Your task to perform on an android device: turn on improve location accuracy Image 0: 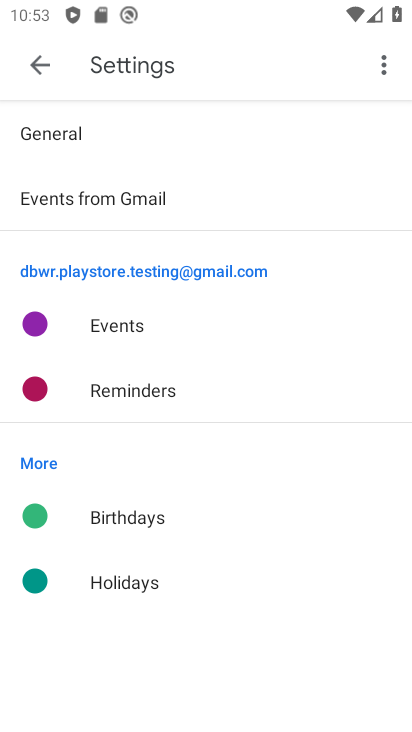
Step 0: press back button
Your task to perform on an android device: turn on improve location accuracy Image 1: 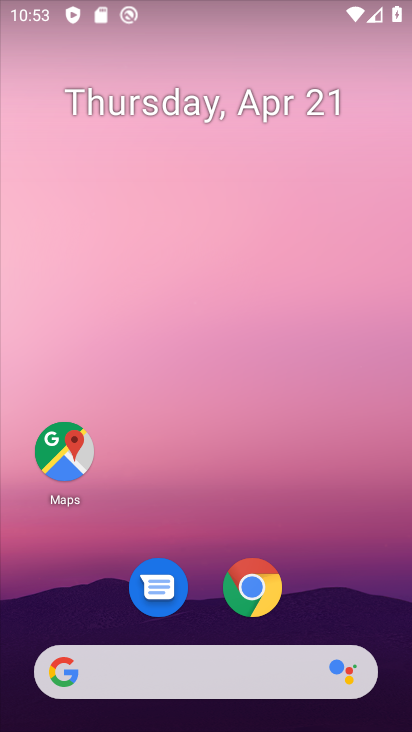
Step 1: drag from (225, 578) to (227, 147)
Your task to perform on an android device: turn on improve location accuracy Image 2: 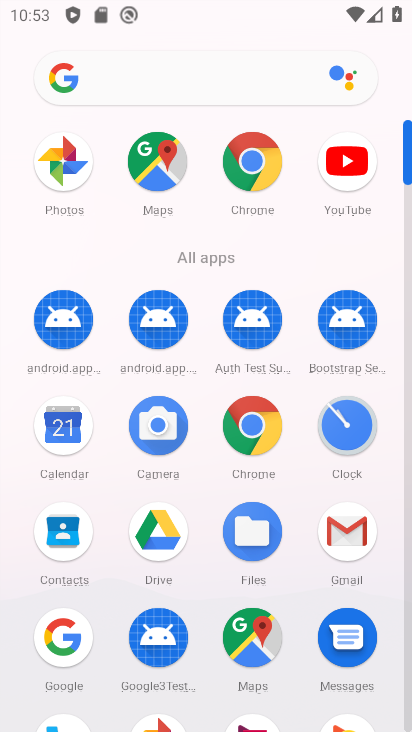
Step 2: drag from (198, 642) to (271, 88)
Your task to perform on an android device: turn on improve location accuracy Image 3: 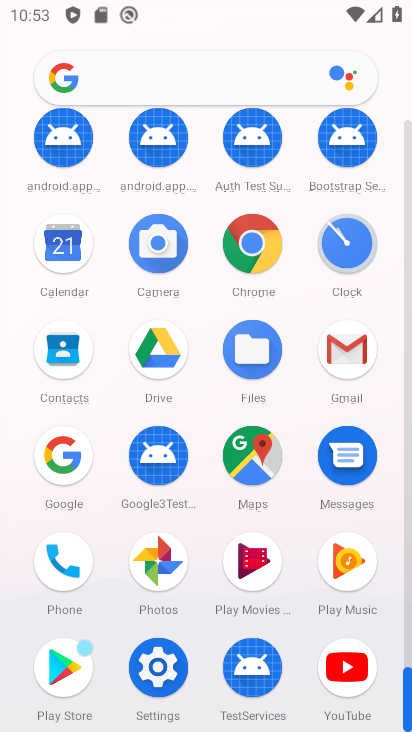
Step 3: click (158, 627)
Your task to perform on an android device: turn on improve location accuracy Image 4: 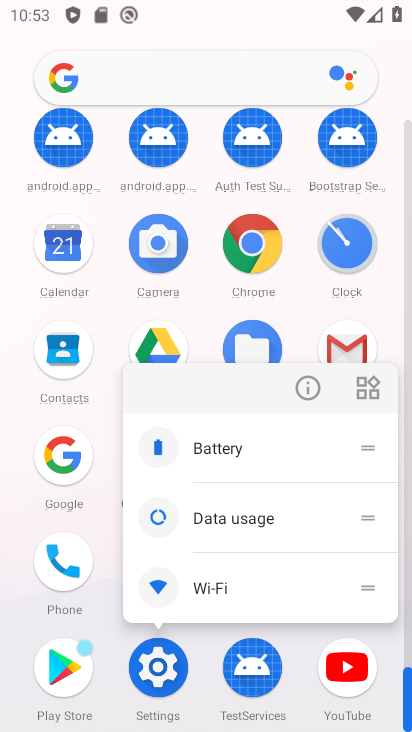
Step 4: click (147, 670)
Your task to perform on an android device: turn on improve location accuracy Image 5: 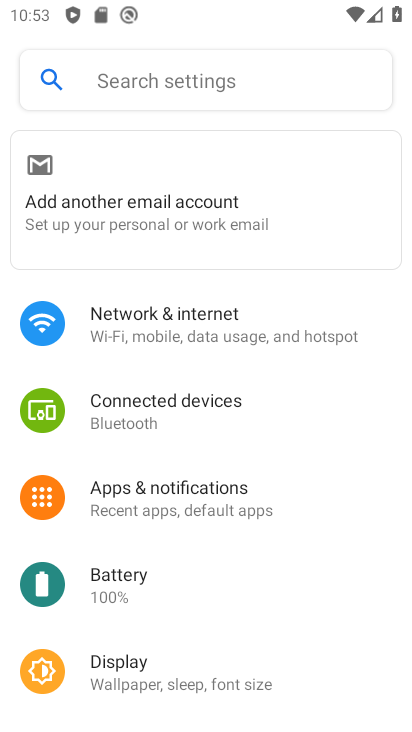
Step 5: drag from (186, 647) to (268, 106)
Your task to perform on an android device: turn on improve location accuracy Image 6: 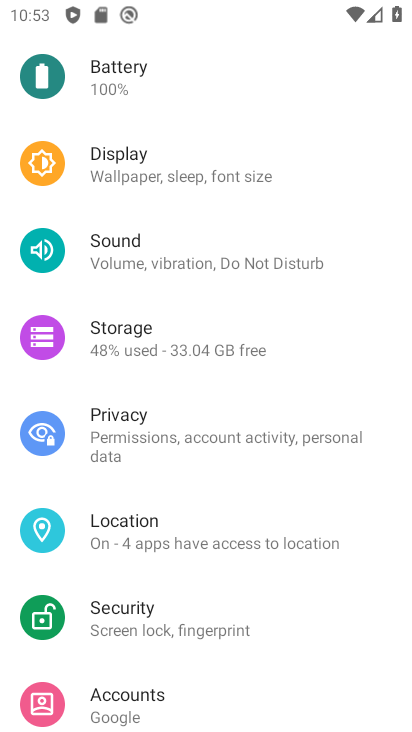
Step 6: click (174, 531)
Your task to perform on an android device: turn on improve location accuracy Image 7: 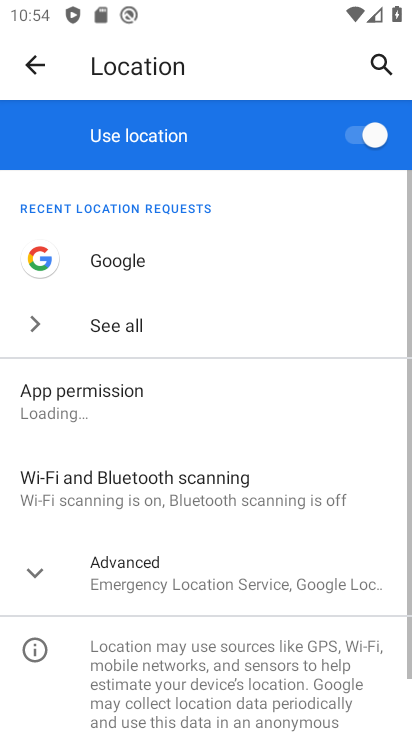
Step 7: click (217, 563)
Your task to perform on an android device: turn on improve location accuracy Image 8: 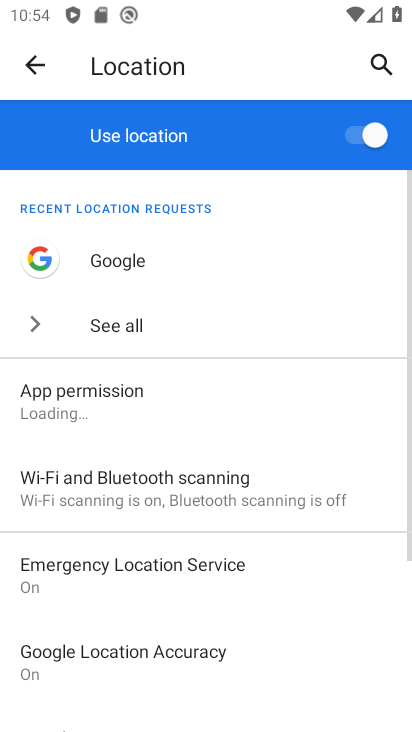
Step 8: click (152, 659)
Your task to perform on an android device: turn on improve location accuracy Image 9: 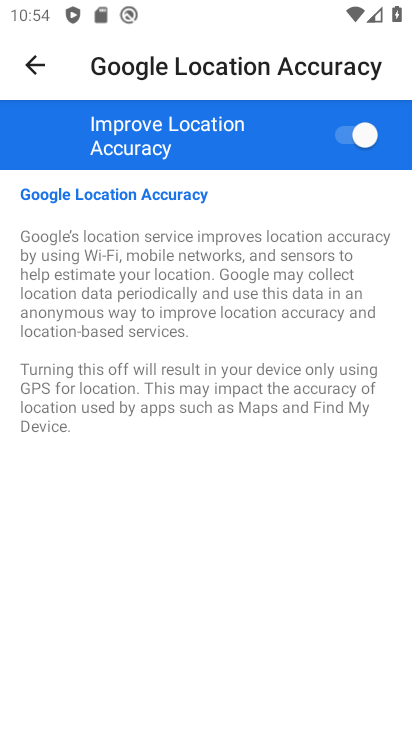
Step 9: task complete